Your task to perform on an android device: change the upload size in google photos Image 0: 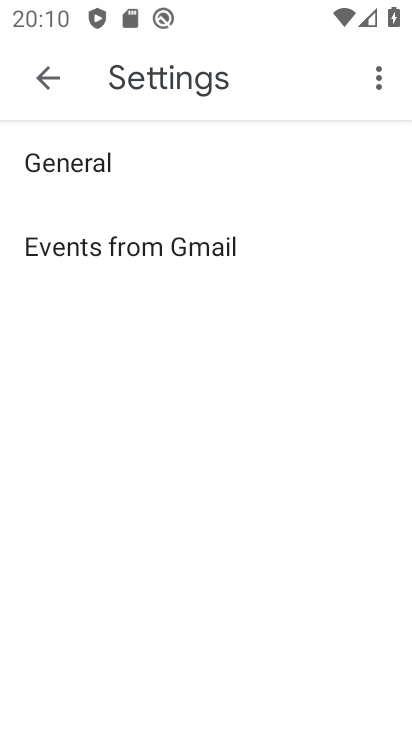
Step 0: press home button
Your task to perform on an android device: change the upload size in google photos Image 1: 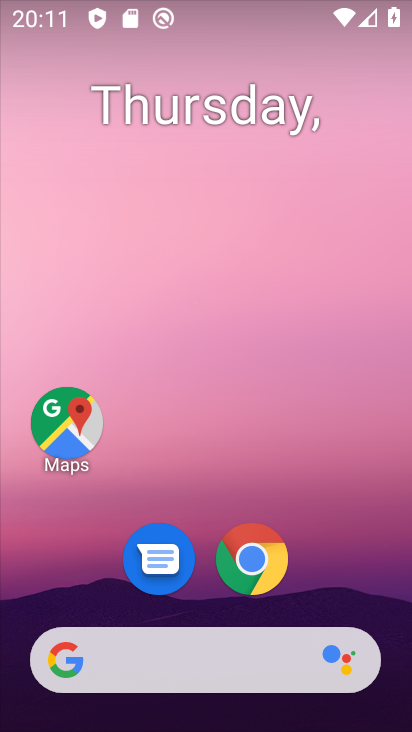
Step 1: drag from (202, 674) to (187, 243)
Your task to perform on an android device: change the upload size in google photos Image 2: 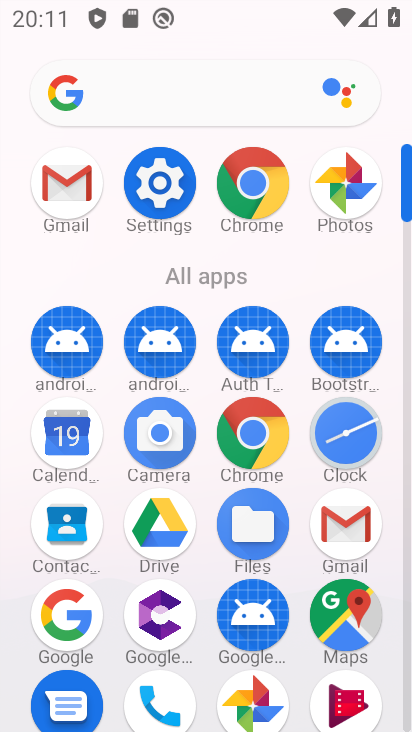
Step 2: click (260, 696)
Your task to perform on an android device: change the upload size in google photos Image 3: 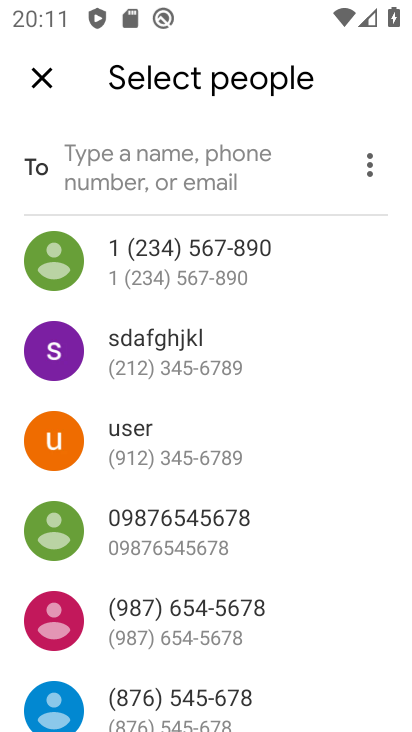
Step 3: click (50, 85)
Your task to perform on an android device: change the upload size in google photos Image 4: 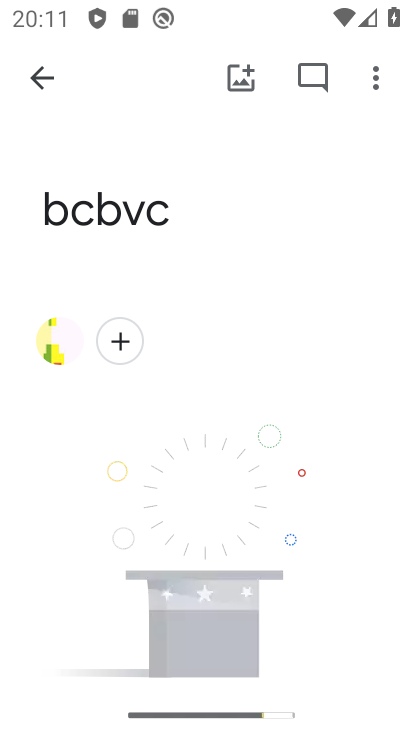
Step 4: click (50, 85)
Your task to perform on an android device: change the upload size in google photos Image 5: 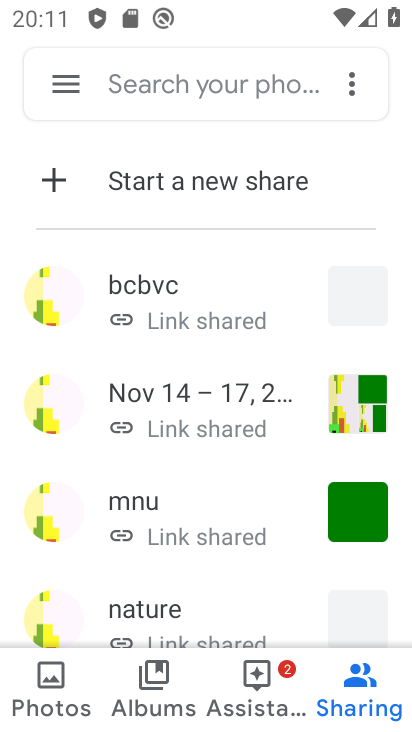
Step 5: click (352, 77)
Your task to perform on an android device: change the upload size in google photos Image 6: 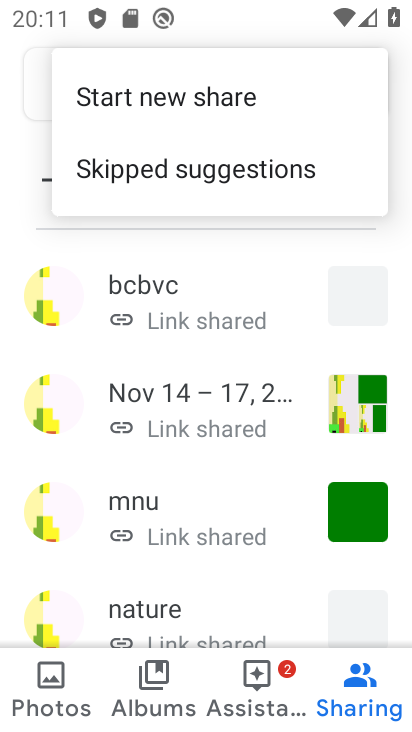
Step 6: click (45, 92)
Your task to perform on an android device: change the upload size in google photos Image 7: 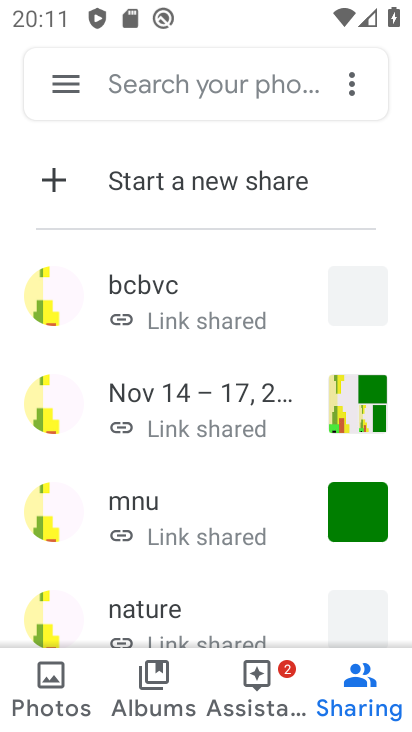
Step 7: click (45, 92)
Your task to perform on an android device: change the upload size in google photos Image 8: 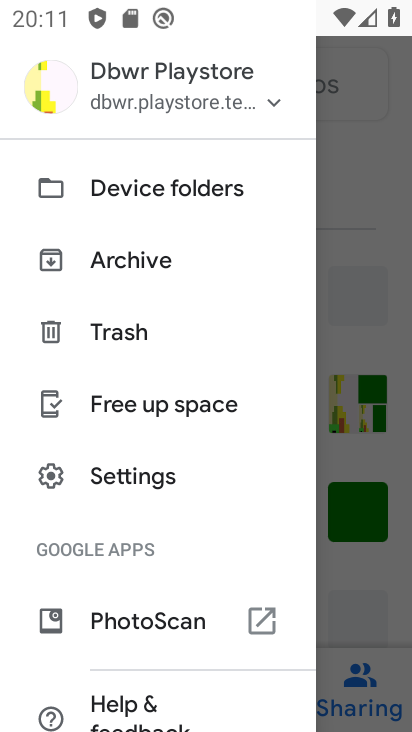
Step 8: click (124, 490)
Your task to perform on an android device: change the upload size in google photos Image 9: 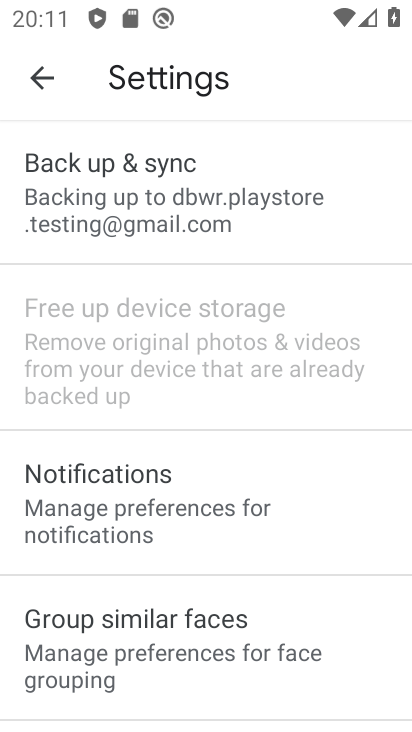
Step 9: click (160, 181)
Your task to perform on an android device: change the upload size in google photos Image 10: 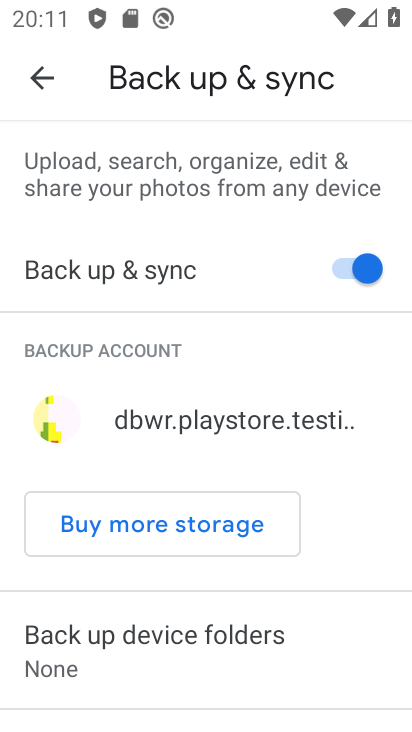
Step 10: drag from (186, 435) to (204, 66)
Your task to perform on an android device: change the upload size in google photos Image 11: 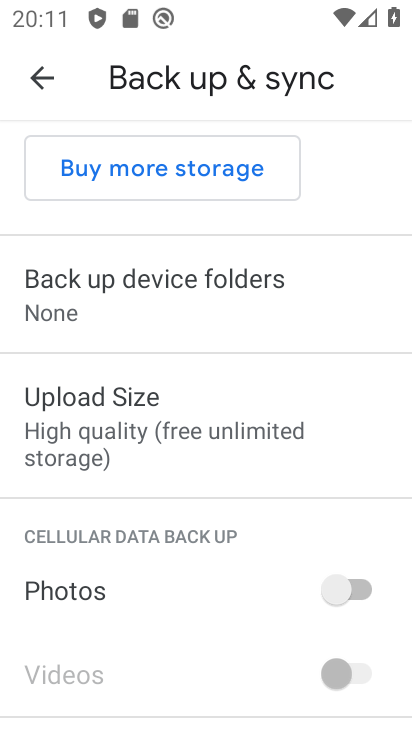
Step 11: click (152, 409)
Your task to perform on an android device: change the upload size in google photos Image 12: 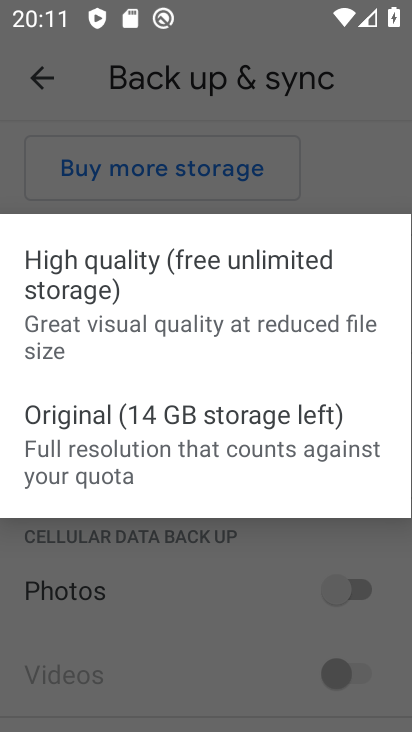
Step 12: click (152, 409)
Your task to perform on an android device: change the upload size in google photos Image 13: 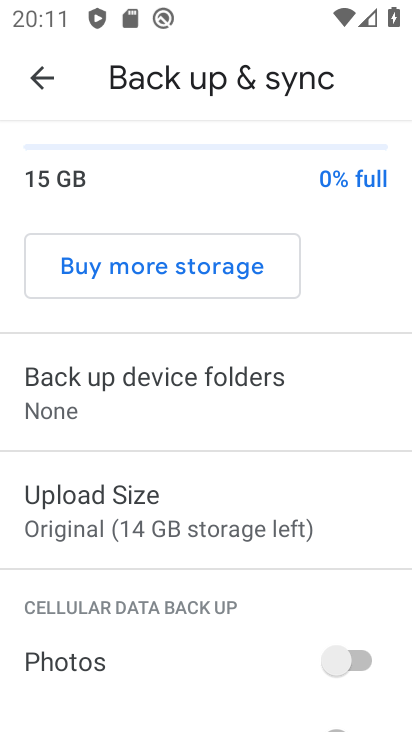
Step 13: task complete